Your task to perform on an android device: turn pop-ups on in chrome Image 0: 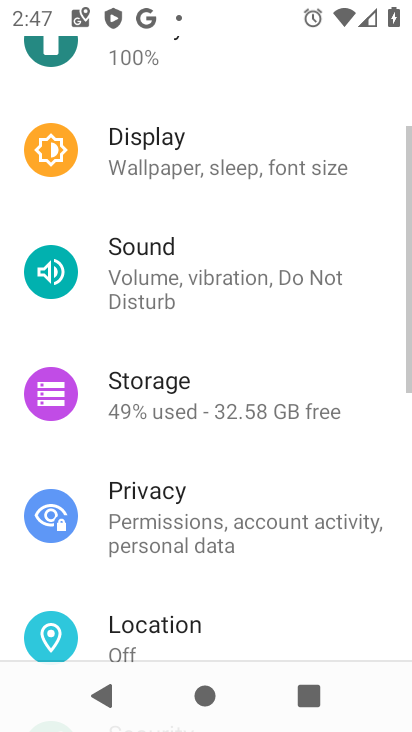
Step 0: press home button
Your task to perform on an android device: turn pop-ups on in chrome Image 1: 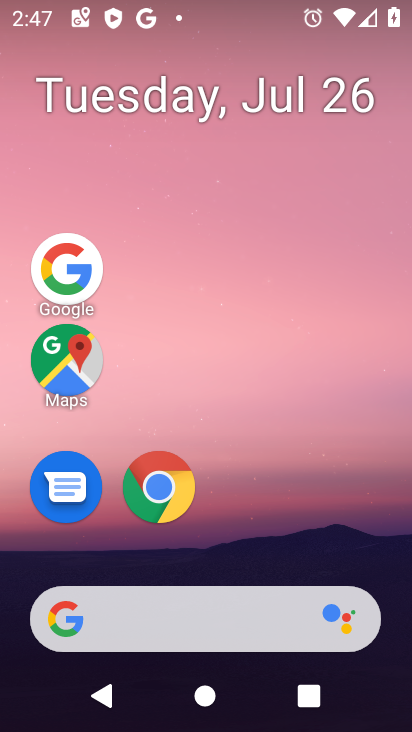
Step 1: drag from (217, 531) to (289, 54)
Your task to perform on an android device: turn pop-ups on in chrome Image 2: 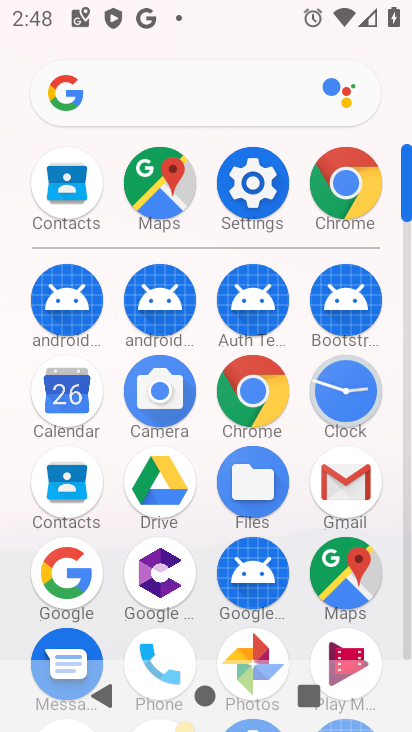
Step 2: click (332, 208)
Your task to perform on an android device: turn pop-ups on in chrome Image 3: 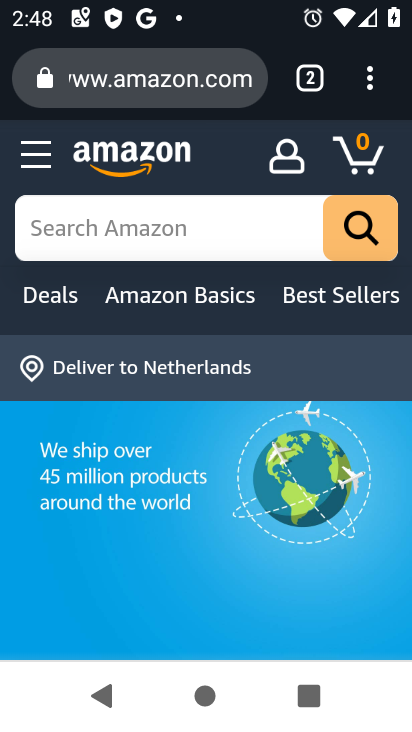
Step 3: click (377, 87)
Your task to perform on an android device: turn pop-ups on in chrome Image 4: 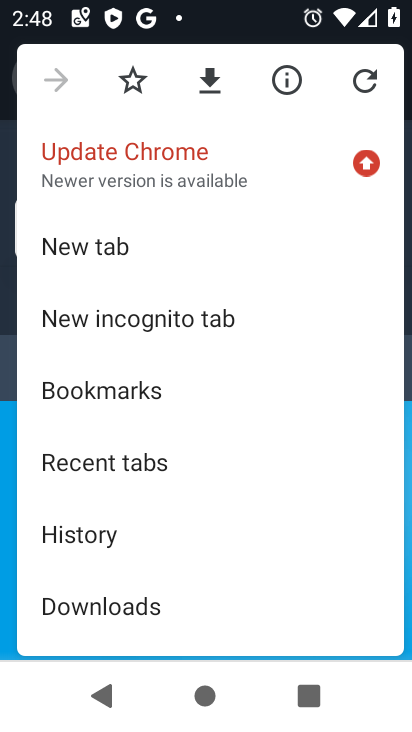
Step 4: drag from (105, 486) to (130, 46)
Your task to perform on an android device: turn pop-ups on in chrome Image 5: 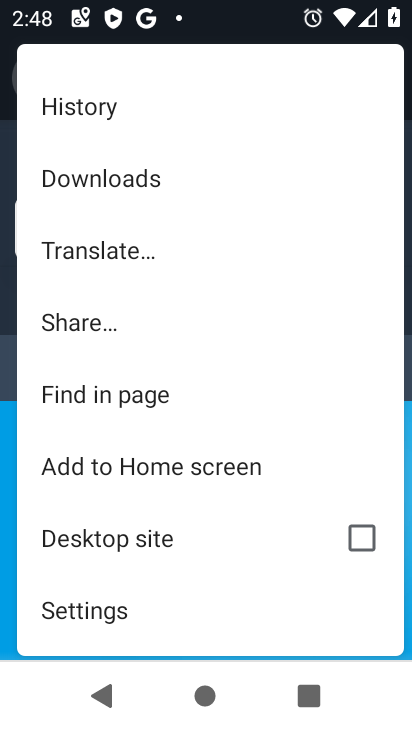
Step 5: click (121, 609)
Your task to perform on an android device: turn pop-ups on in chrome Image 6: 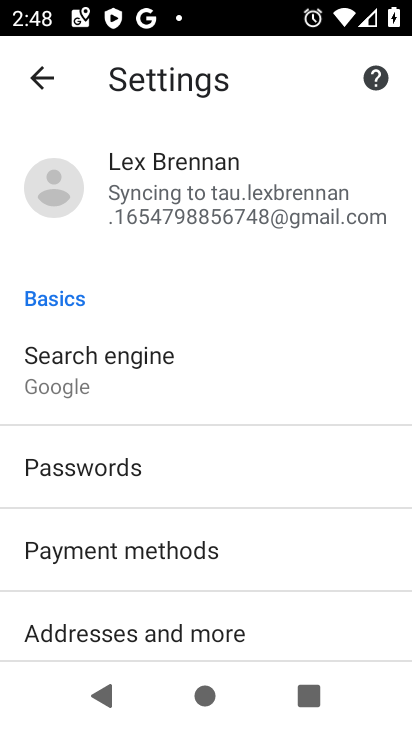
Step 6: drag from (163, 540) to (201, 165)
Your task to perform on an android device: turn pop-ups on in chrome Image 7: 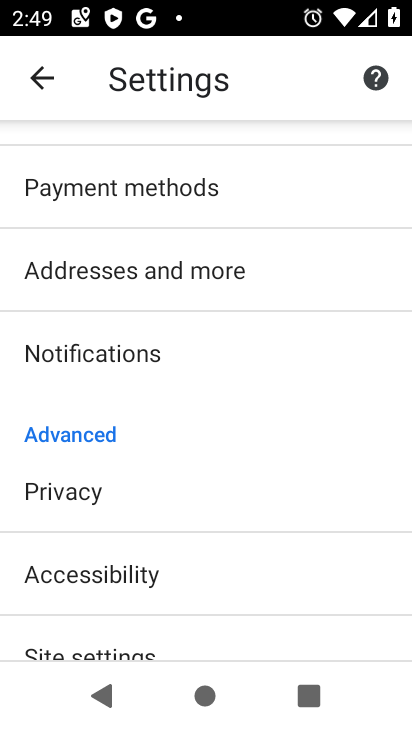
Step 7: drag from (150, 547) to (162, 322)
Your task to perform on an android device: turn pop-ups on in chrome Image 8: 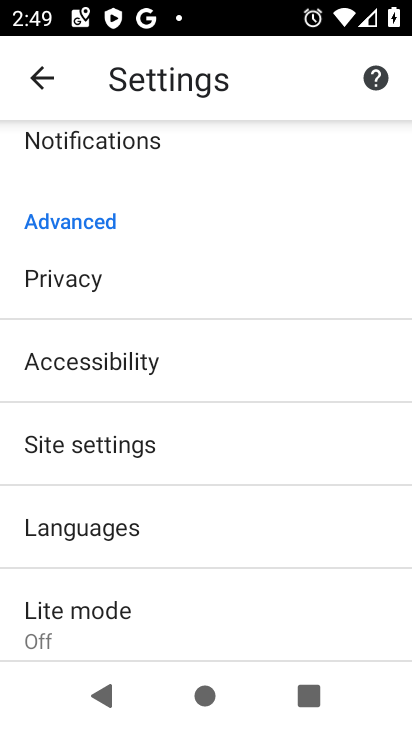
Step 8: click (128, 445)
Your task to perform on an android device: turn pop-ups on in chrome Image 9: 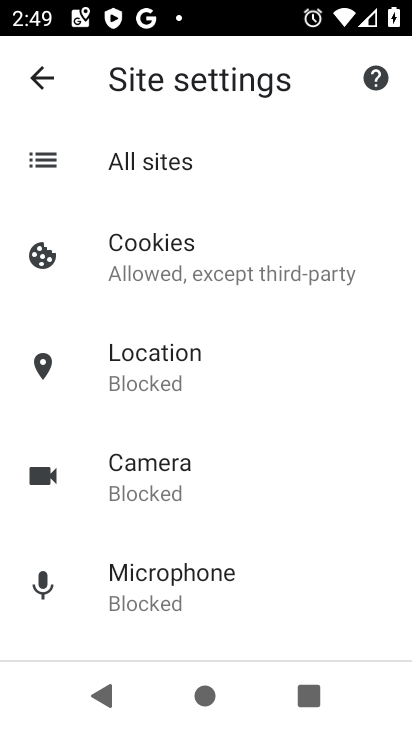
Step 9: drag from (179, 434) to (194, 176)
Your task to perform on an android device: turn pop-ups on in chrome Image 10: 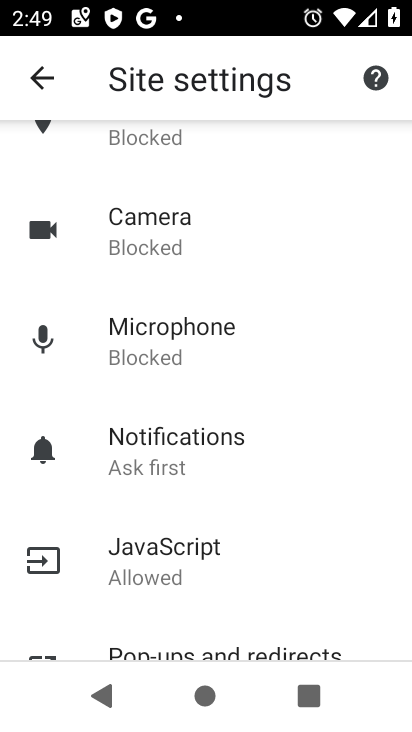
Step 10: drag from (179, 514) to (192, 250)
Your task to perform on an android device: turn pop-ups on in chrome Image 11: 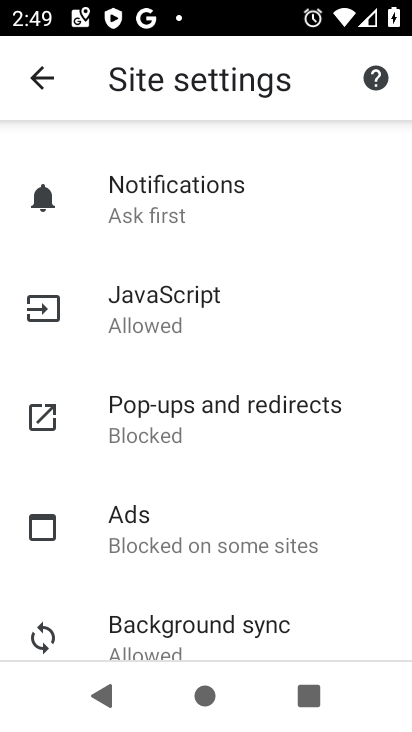
Step 11: click (204, 407)
Your task to perform on an android device: turn pop-ups on in chrome Image 12: 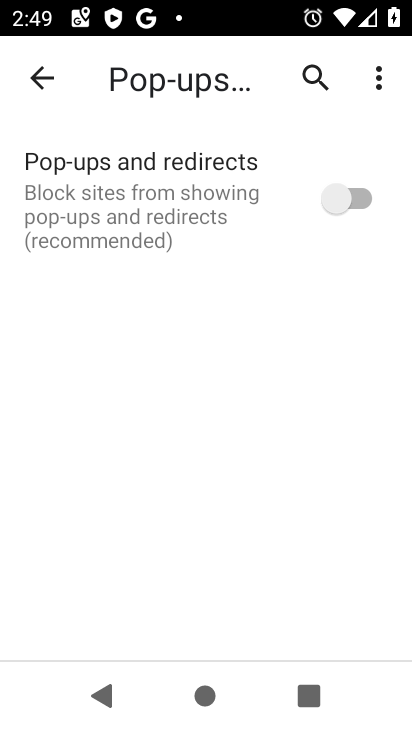
Step 12: click (352, 212)
Your task to perform on an android device: turn pop-ups on in chrome Image 13: 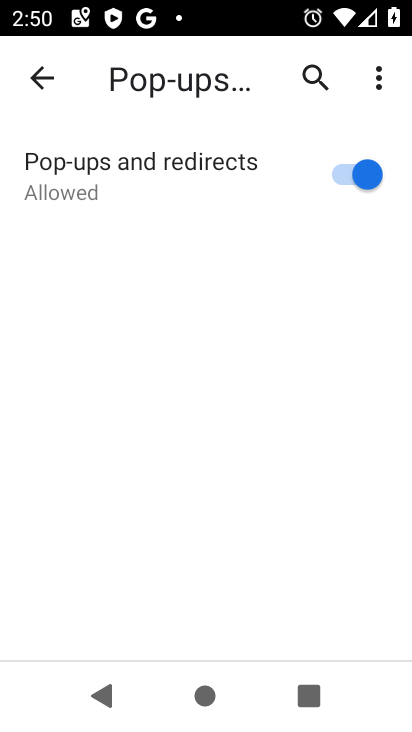
Step 13: task complete